Your task to perform on an android device: change the clock style Image 0: 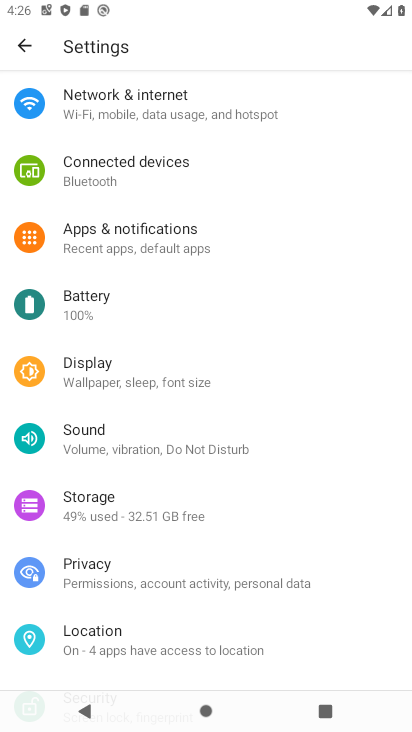
Step 0: press home button
Your task to perform on an android device: change the clock style Image 1: 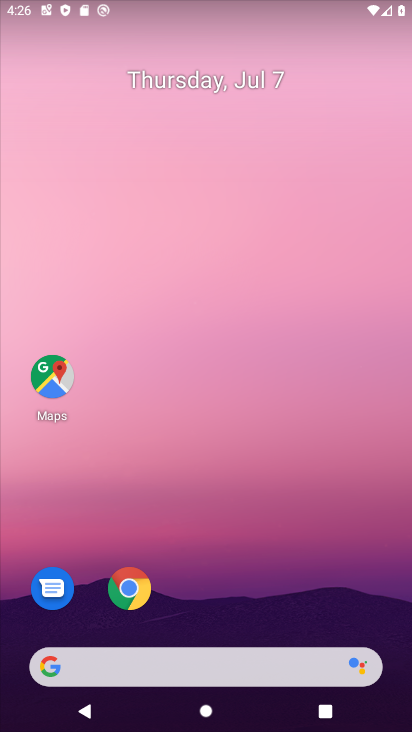
Step 1: drag from (245, 549) to (267, 228)
Your task to perform on an android device: change the clock style Image 2: 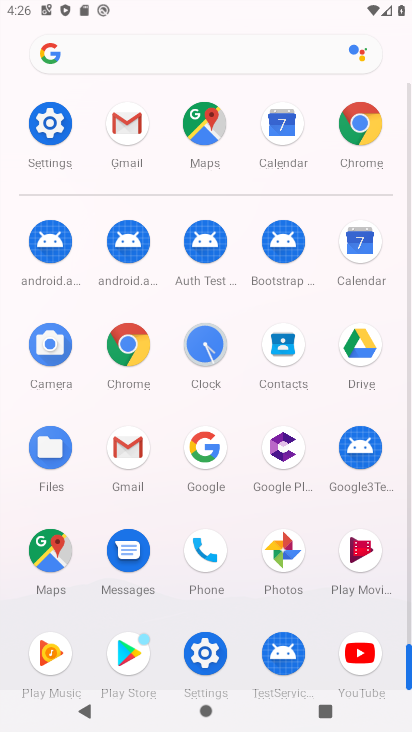
Step 2: click (206, 362)
Your task to perform on an android device: change the clock style Image 3: 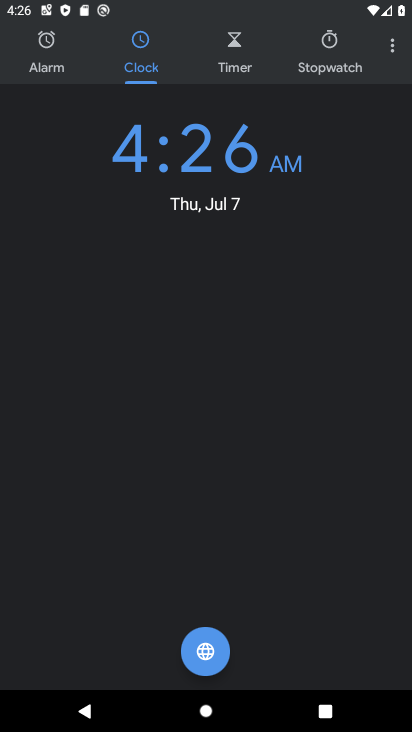
Step 3: click (398, 39)
Your task to perform on an android device: change the clock style Image 4: 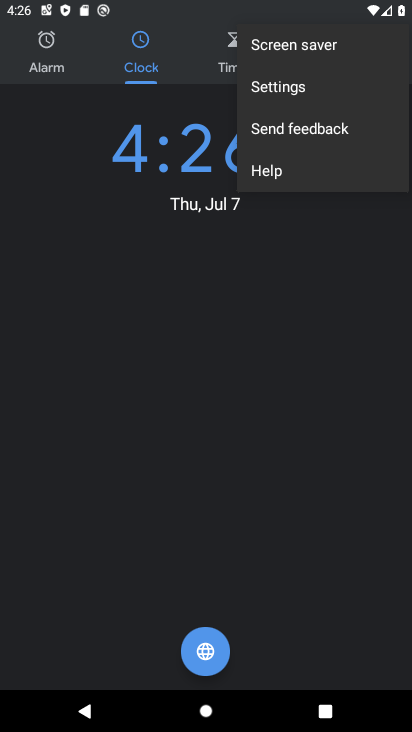
Step 4: click (319, 94)
Your task to perform on an android device: change the clock style Image 5: 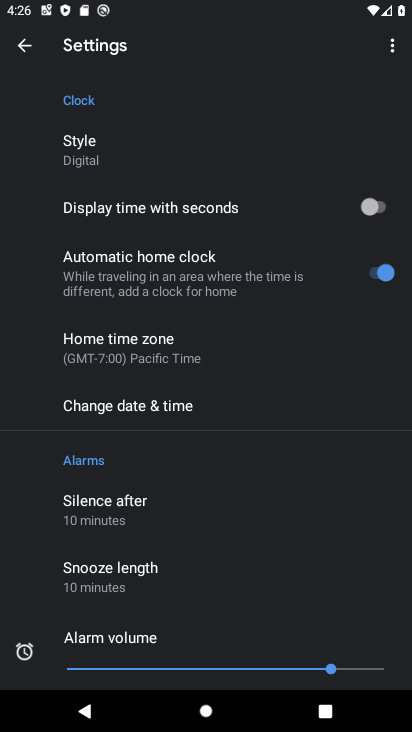
Step 5: click (103, 133)
Your task to perform on an android device: change the clock style Image 6: 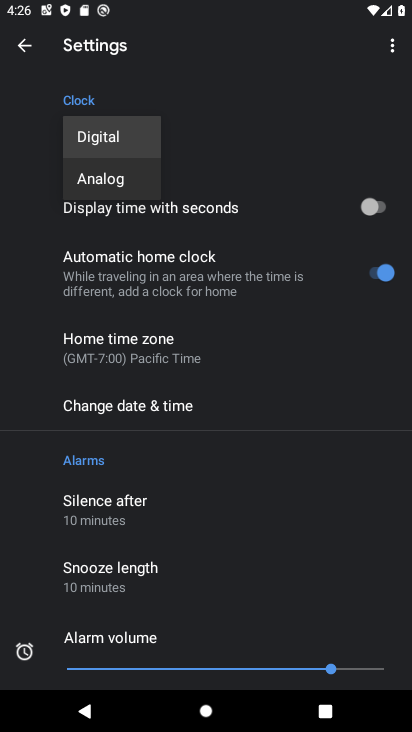
Step 6: click (125, 178)
Your task to perform on an android device: change the clock style Image 7: 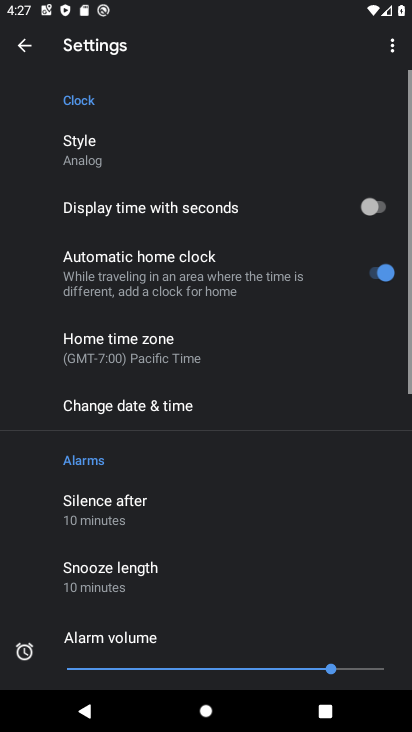
Step 7: task complete